Your task to perform on an android device: Is it going to rain today? Image 0: 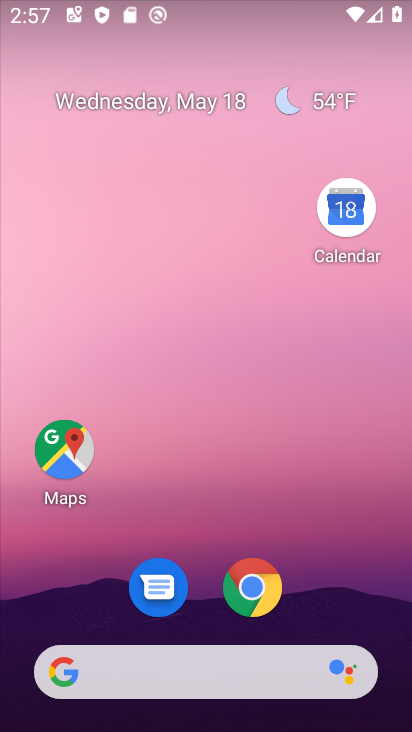
Step 0: drag from (215, 581) to (215, 102)
Your task to perform on an android device: Is it going to rain today? Image 1: 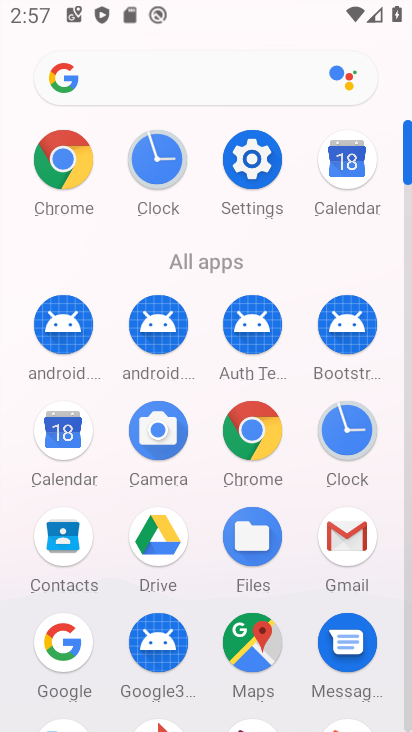
Step 1: click (161, 72)
Your task to perform on an android device: Is it going to rain today? Image 2: 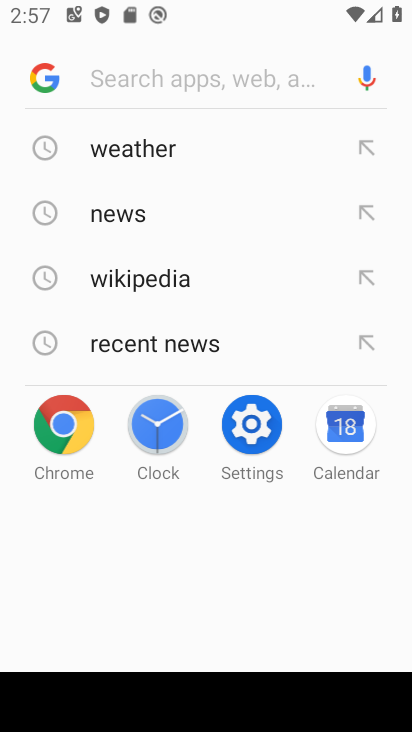
Step 2: type "rain today"
Your task to perform on an android device: Is it going to rain today? Image 3: 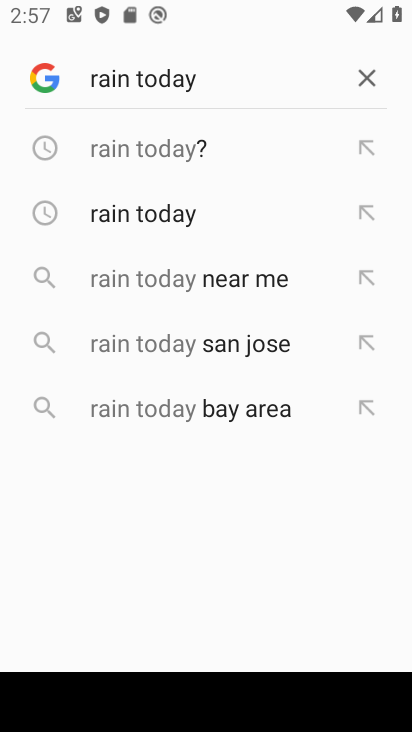
Step 3: click (152, 136)
Your task to perform on an android device: Is it going to rain today? Image 4: 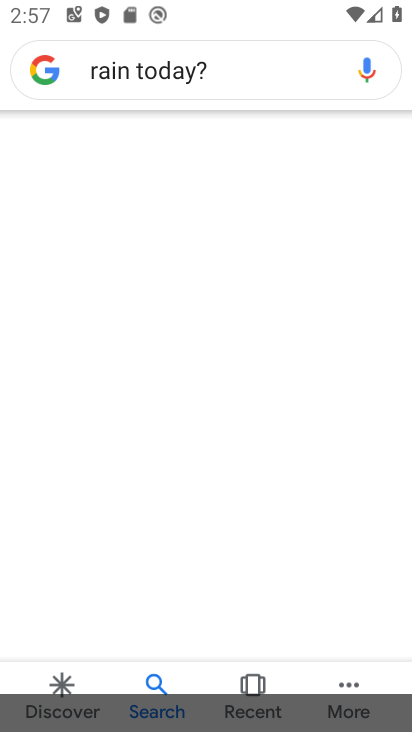
Step 4: task complete